Your task to perform on an android device: Set the phone to "Do not disturb". Image 0: 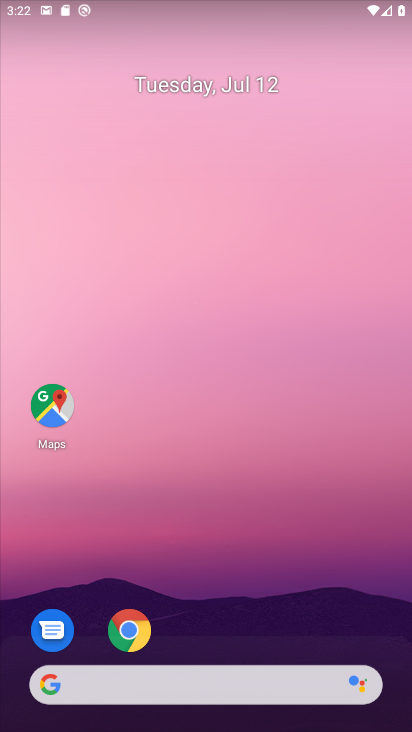
Step 0: drag from (244, 651) to (270, 86)
Your task to perform on an android device: Set the phone to "Do not disturb". Image 1: 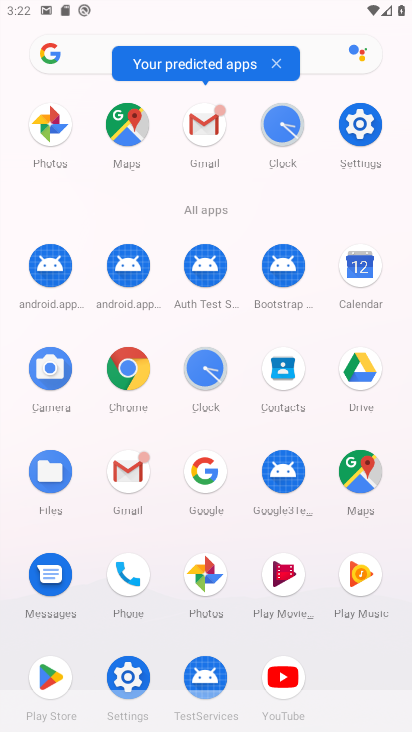
Step 1: click (128, 671)
Your task to perform on an android device: Set the phone to "Do not disturb". Image 2: 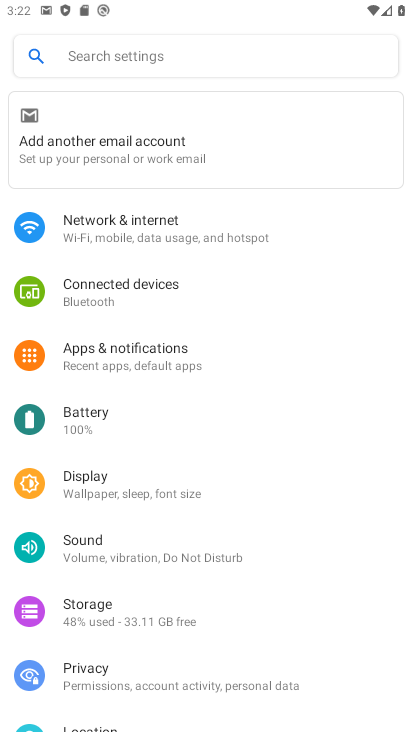
Step 2: click (115, 370)
Your task to perform on an android device: Set the phone to "Do not disturb". Image 3: 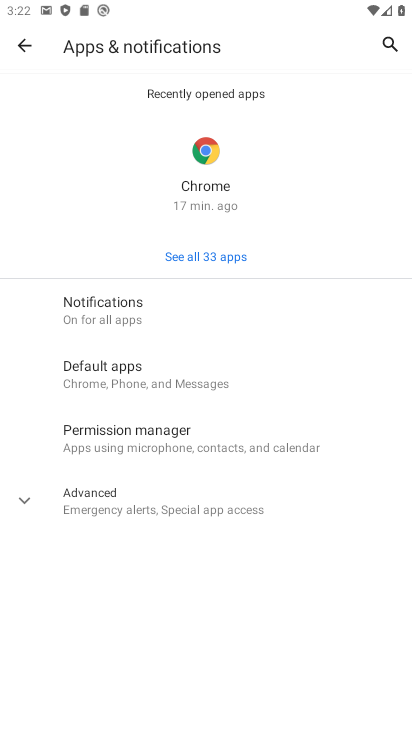
Step 3: click (200, 313)
Your task to perform on an android device: Set the phone to "Do not disturb". Image 4: 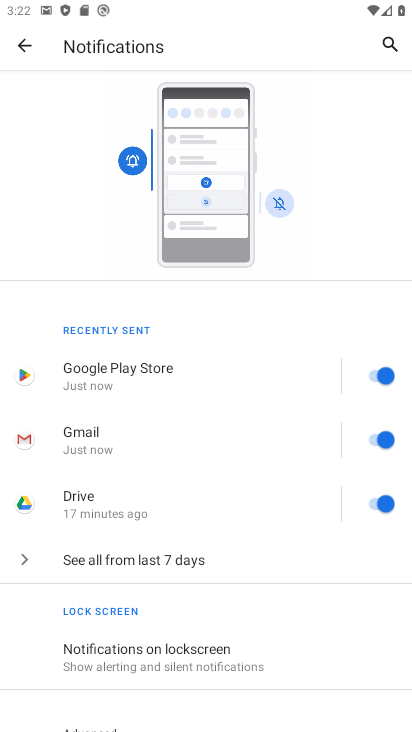
Step 4: drag from (129, 600) to (201, 286)
Your task to perform on an android device: Set the phone to "Do not disturb". Image 5: 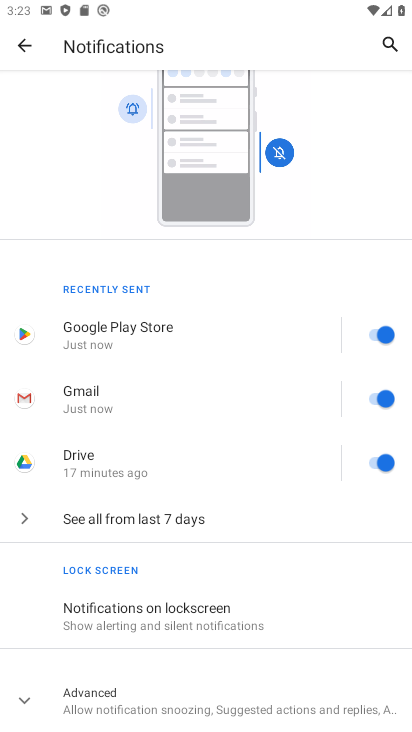
Step 5: click (105, 699)
Your task to perform on an android device: Set the phone to "Do not disturb". Image 6: 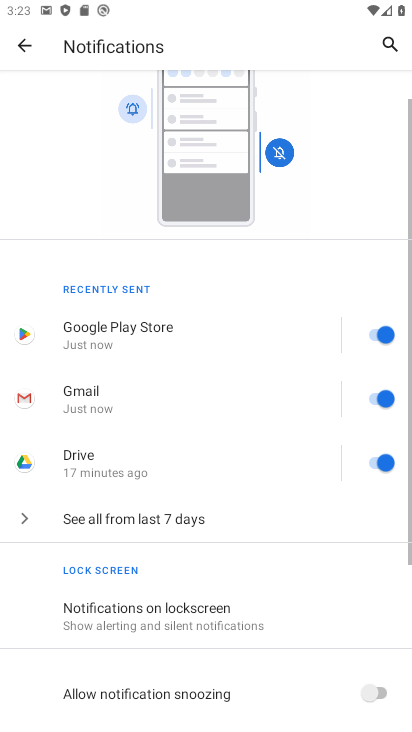
Step 6: drag from (105, 699) to (197, 272)
Your task to perform on an android device: Set the phone to "Do not disturb". Image 7: 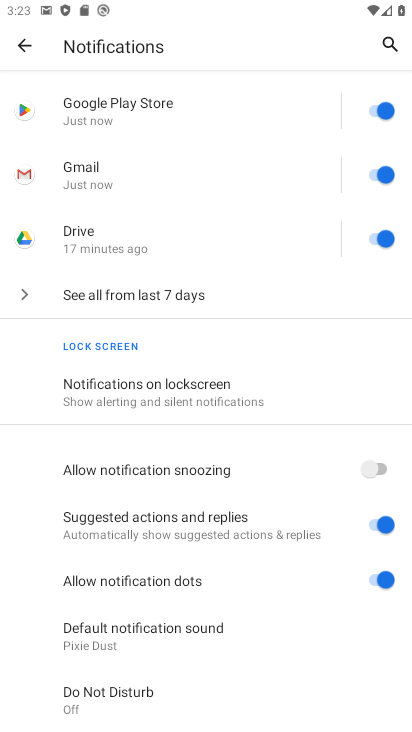
Step 7: click (155, 673)
Your task to perform on an android device: Set the phone to "Do not disturb". Image 8: 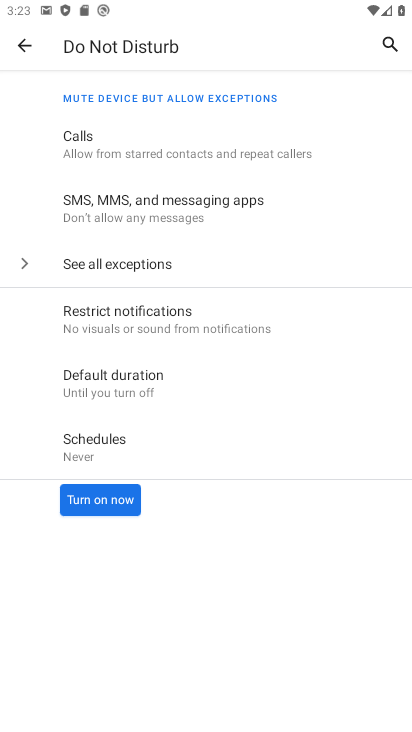
Step 8: click (113, 515)
Your task to perform on an android device: Set the phone to "Do not disturb". Image 9: 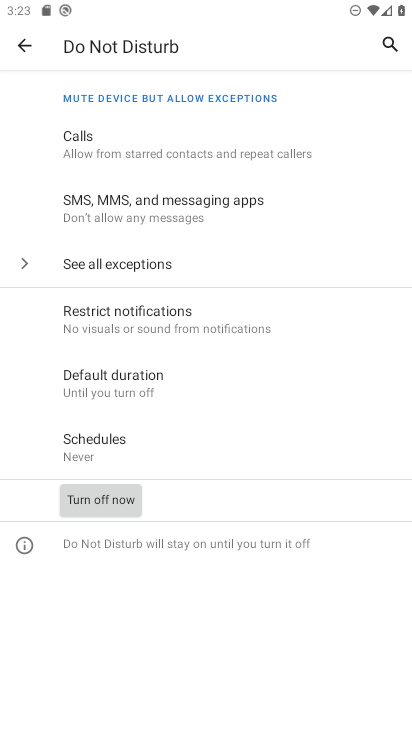
Step 9: task complete